Your task to perform on an android device: Search for bose soundlink on ebay, select the first entry, and add it to the cart. Image 0: 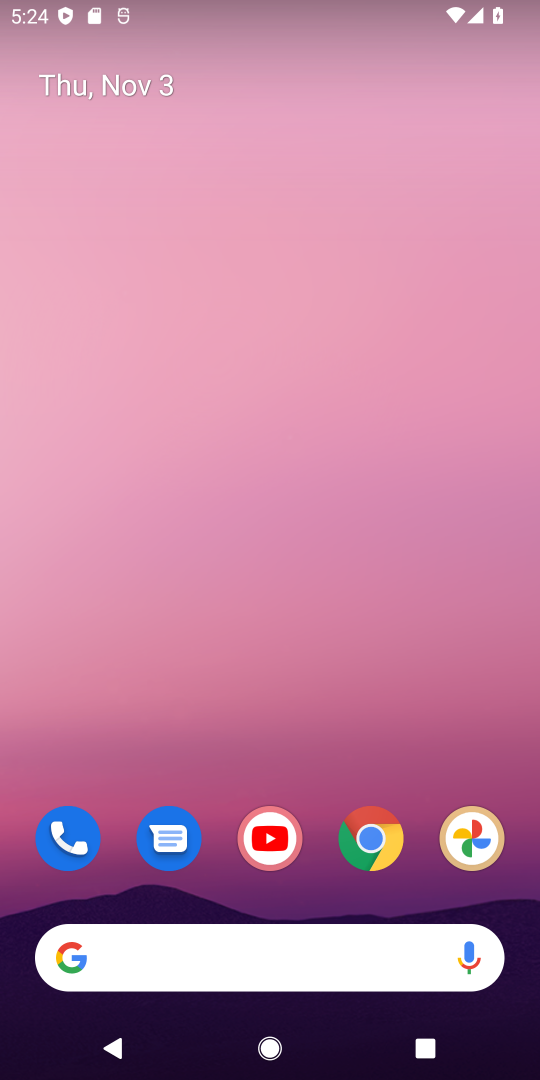
Step 0: click (373, 829)
Your task to perform on an android device: Search for bose soundlink on ebay, select the first entry, and add it to the cart. Image 1: 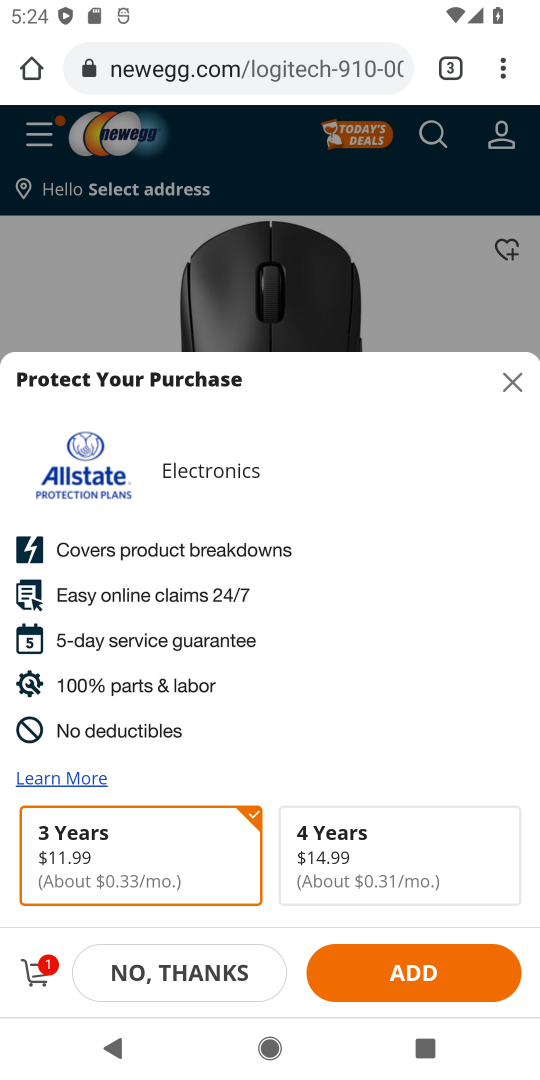
Step 1: click (453, 67)
Your task to perform on an android device: Search for bose soundlink on ebay, select the first entry, and add it to the cart. Image 2: 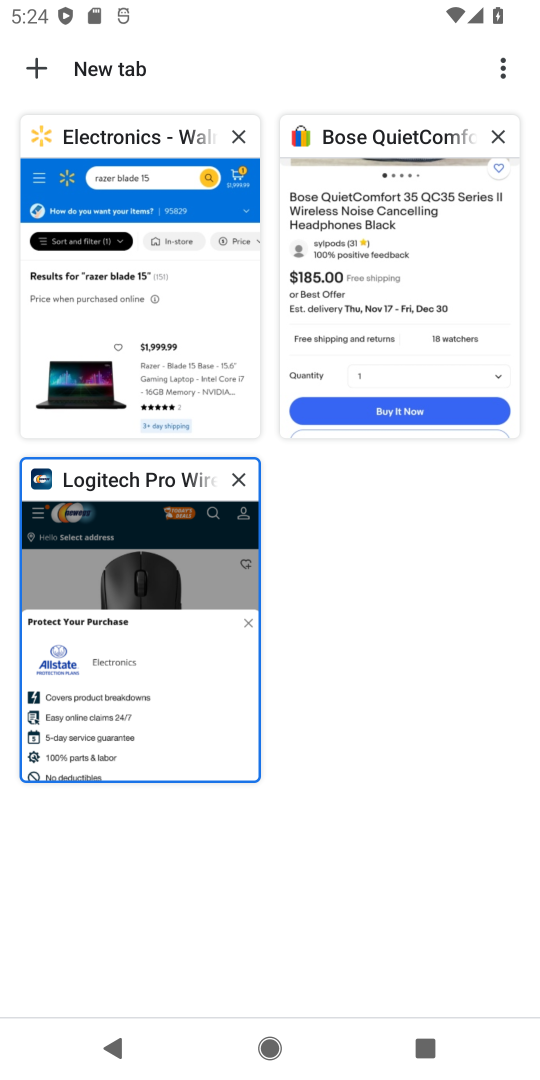
Step 2: click (359, 205)
Your task to perform on an android device: Search for bose soundlink on ebay, select the first entry, and add it to the cart. Image 3: 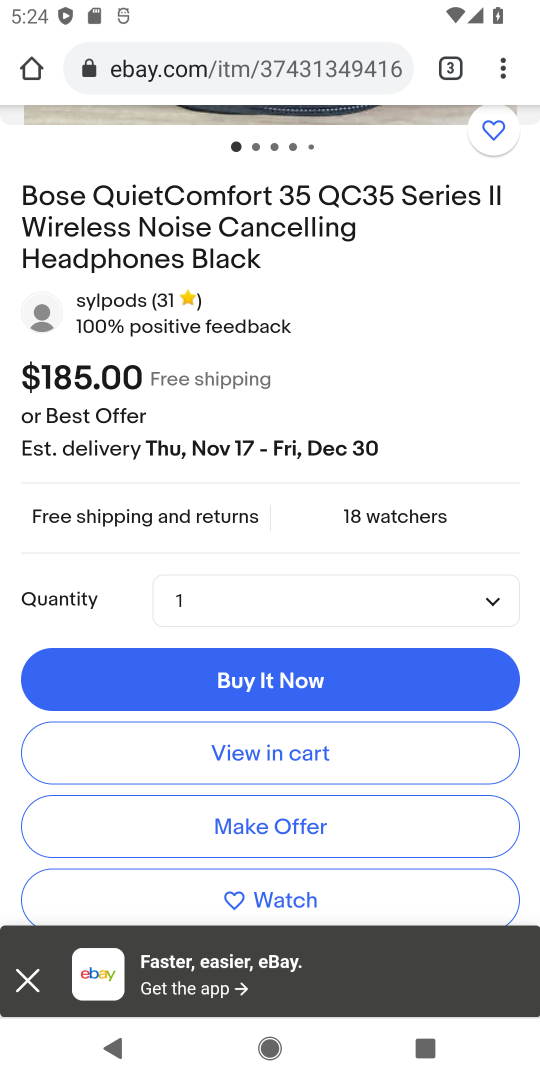
Step 3: drag from (409, 227) to (513, 1017)
Your task to perform on an android device: Search for bose soundlink on ebay, select the first entry, and add it to the cart. Image 4: 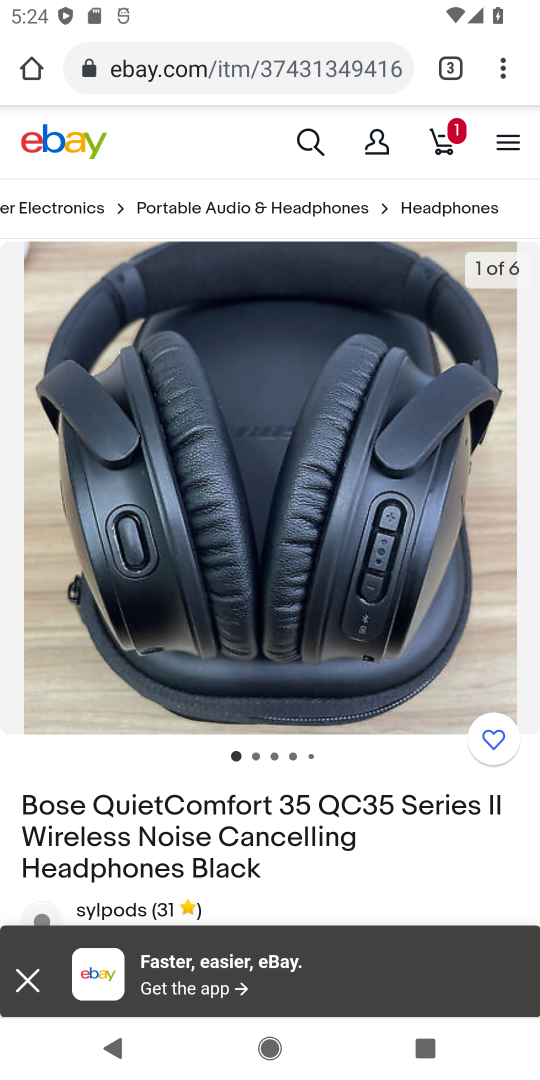
Step 4: click (311, 144)
Your task to perform on an android device: Search for bose soundlink on ebay, select the first entry, and add it to the cart. Image 5: 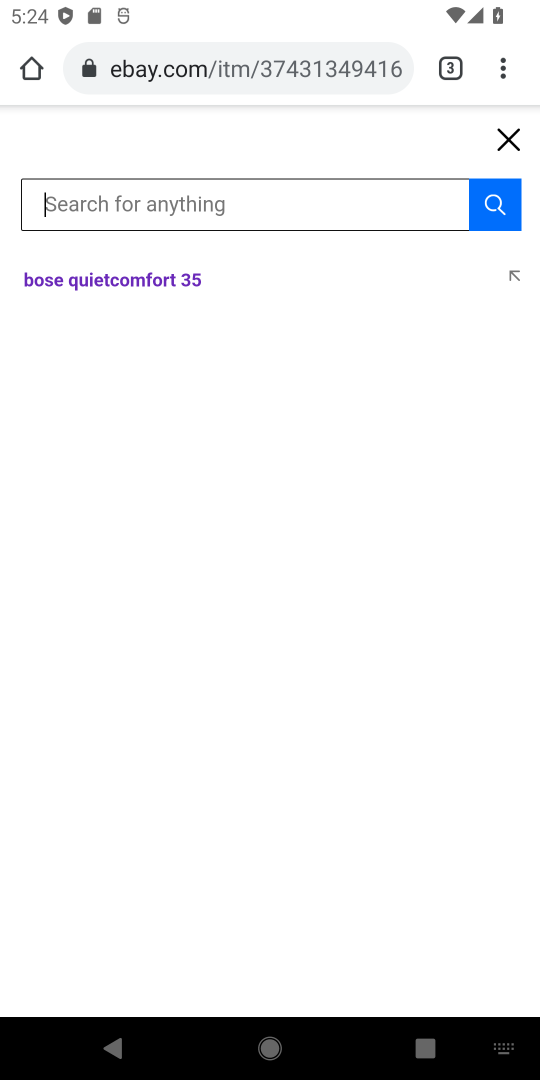
Step 5: type "bose soundlink"
Your task to perform on an android device: Search for bose soundlink on ebay, select the first entry, and add it to the cart. Image 6: 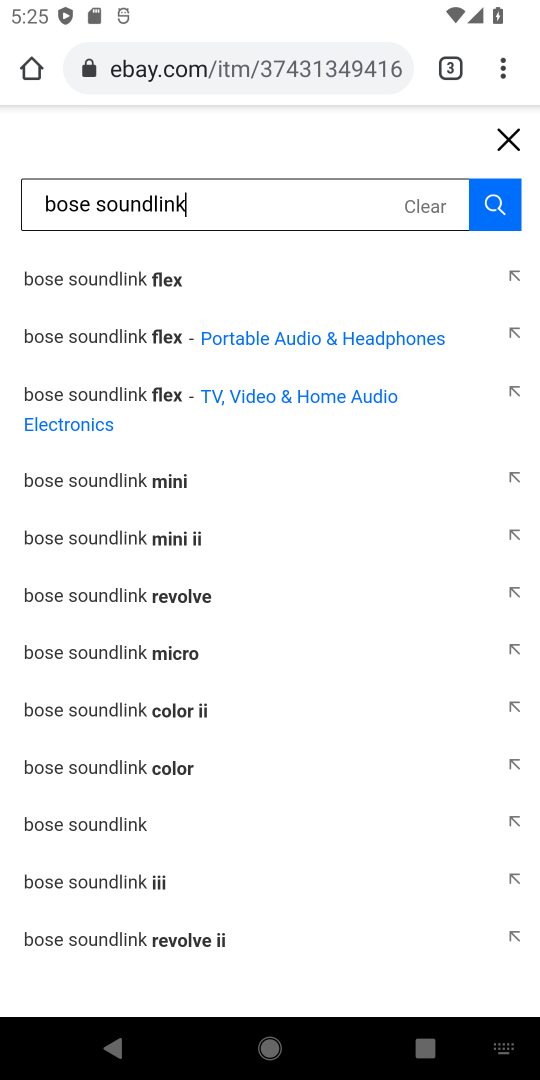
Step 6: click (118, 337)
Your task to perform on an android device: Search for bose soundlink on ebay, select the first entry, and add it to the cart. Image 7: 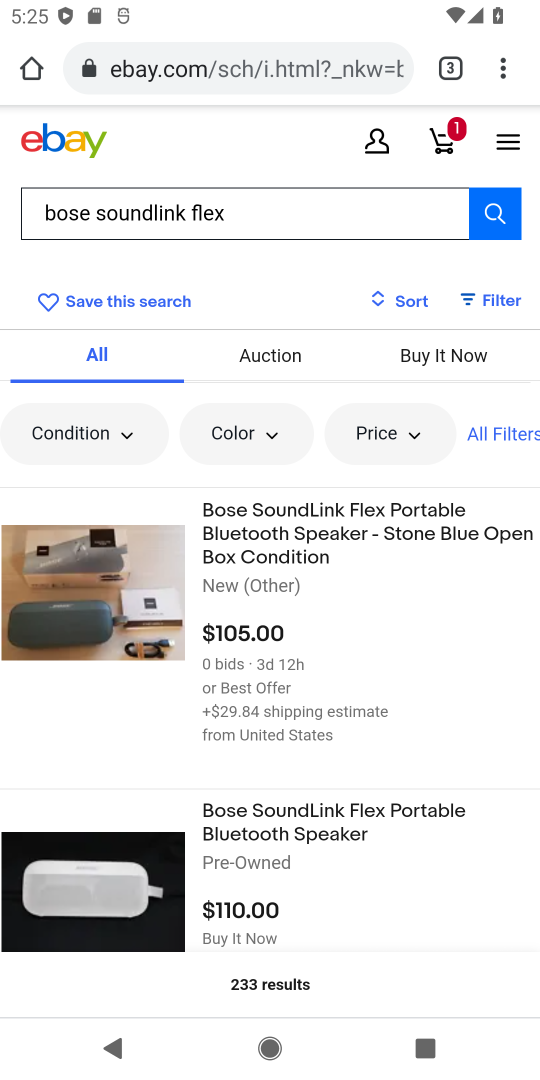
Step 7: click (354, 548)
Your task to perform on an android device: Search for bose soundlink on ebay, select the first entry, and add it to the cart. Image 8: 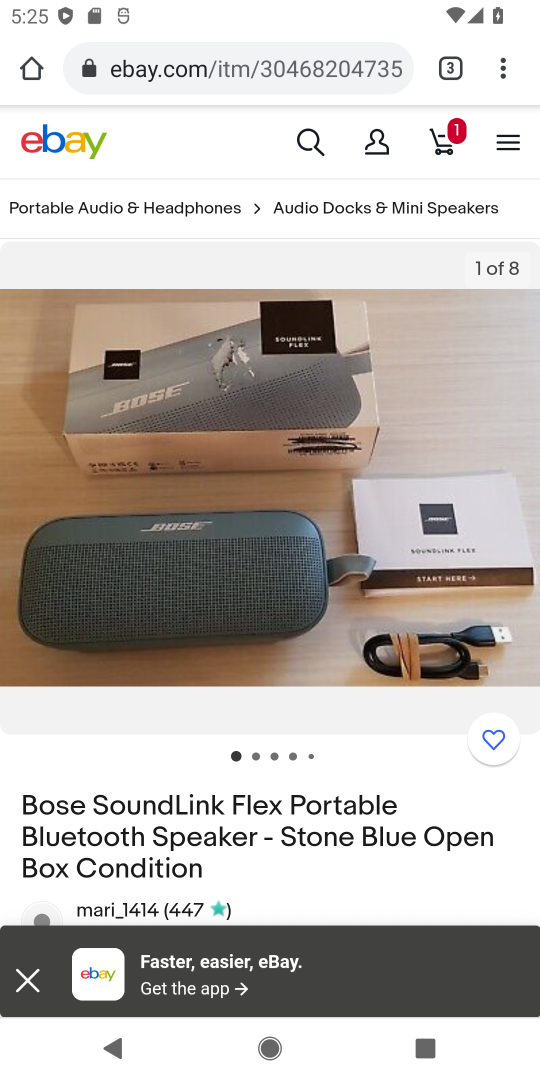
Step 8: drag from (288, 877) to (457, 26)
Your task to perform on an android device: Search for bose soundlink on ebay, select the first entry, and add it to the cart. Image 9: 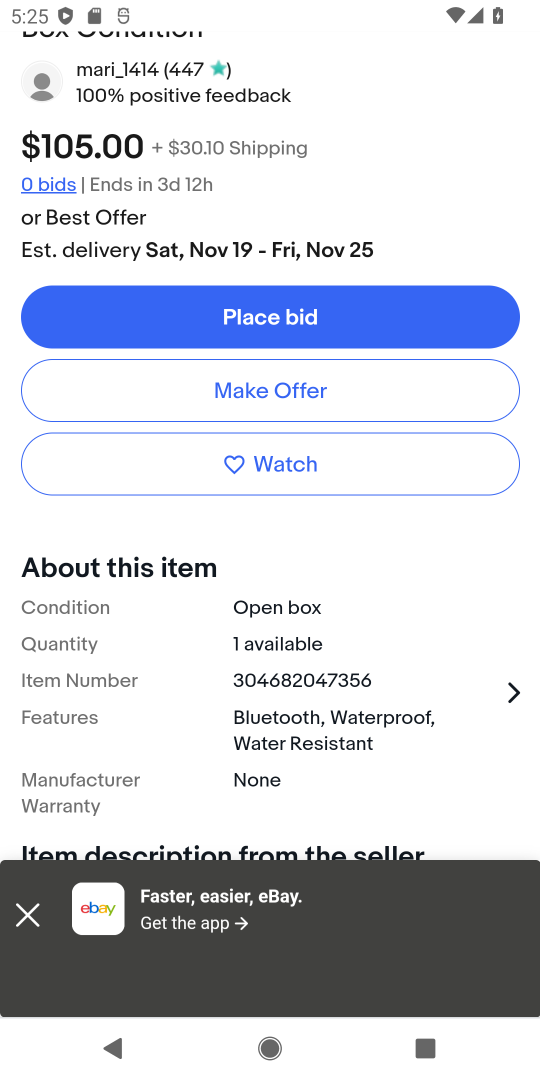
Step 9: press back button
Your task to perform on an android device: Search for bose soundlink on ebay, select the first entry, and add it to the cart. Image 10: 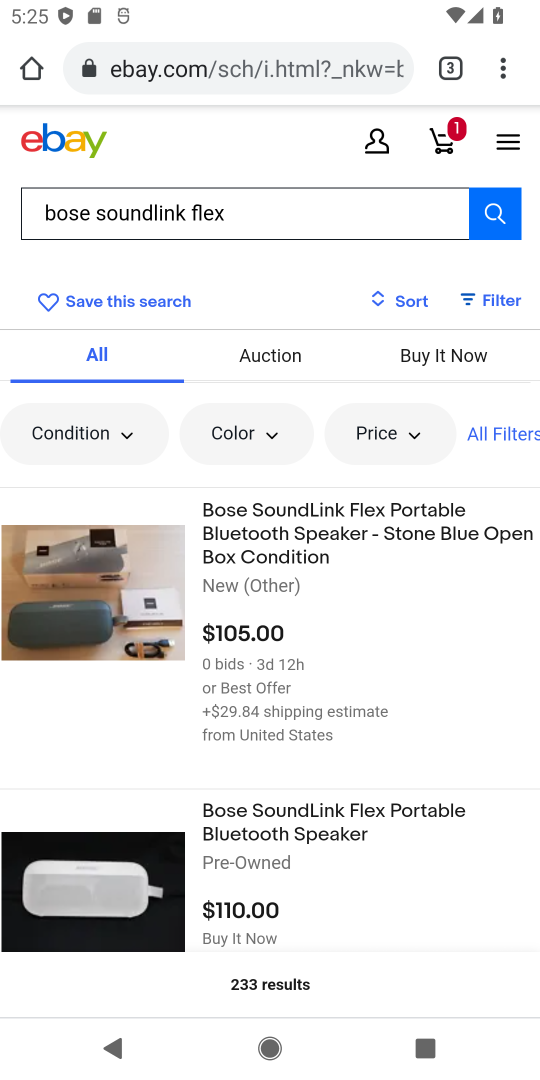
Step 10: drag from (379, 891) to (405, 405)
Your task to perform on an android device: Search for bose soundlink on ebay, select the first entry, and add it to the cart. Image 11: 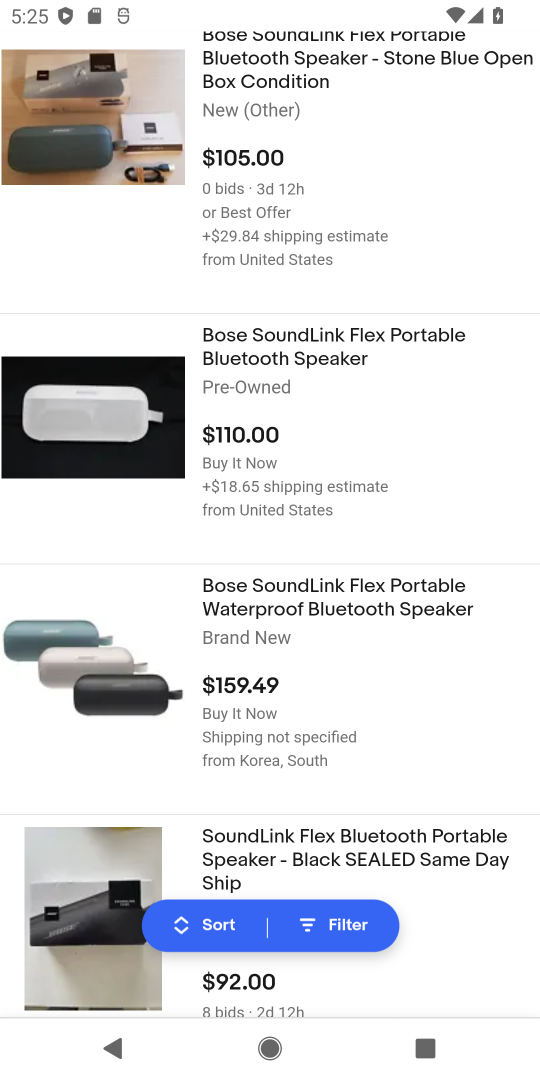
Step 11: click (364, 836)
Your task to perform on an android device: Search for bose soundlink on ebay, select the first entry, and add it to the cart. Image 12: 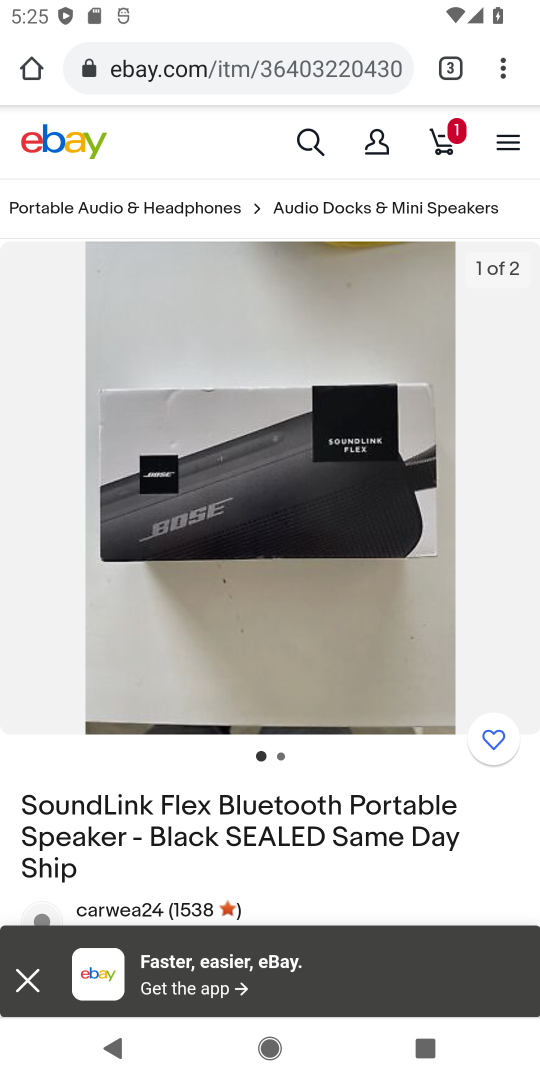
Step 12: drag from (375, 935) to (399, 130)
Your task to perform on an android device: Search for bose soundlink on ebay, select the first entry, and add it to the cart. Image 13: 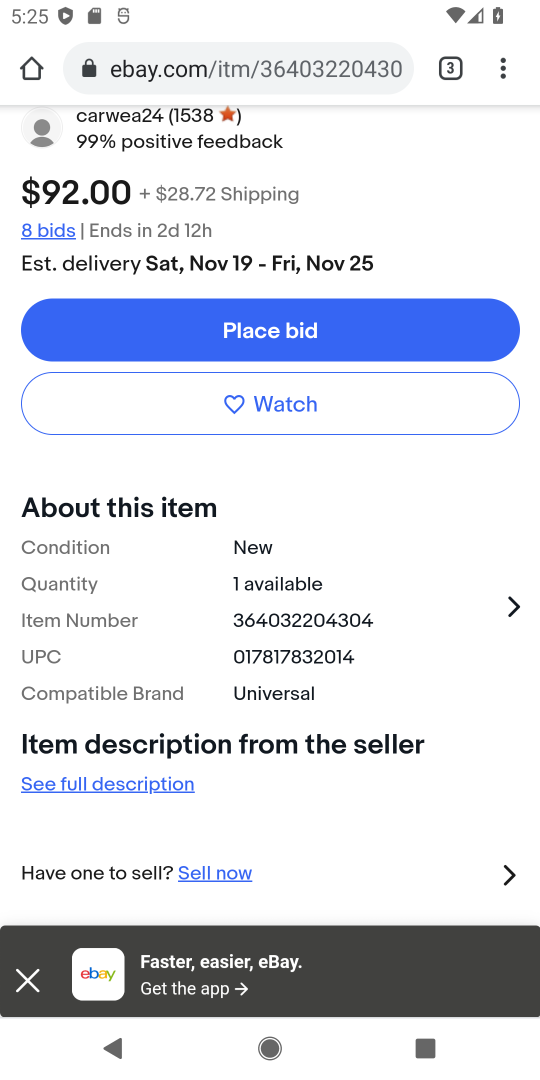
Step 13: press back button
Your task to perform on an android device: Search for bose soundlink on ebay, select the first entry, and add it to the cart. Image 14: 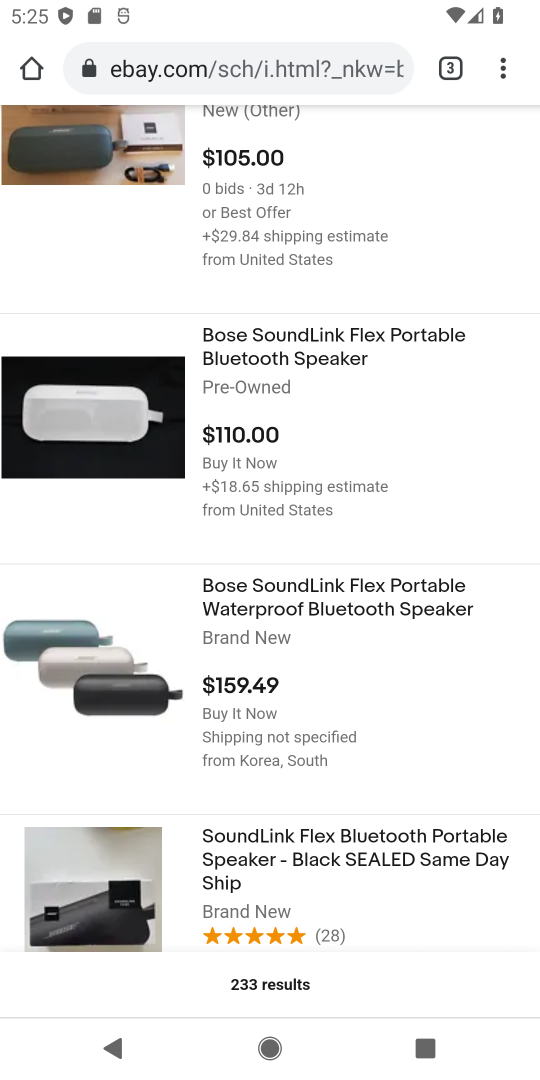
Step 14: drag from (396, 746) to (480, 162)
Your task to perform on an android device: Search for bose soundlink on ebay, select the first entry, and add it to the cart. Image 15: 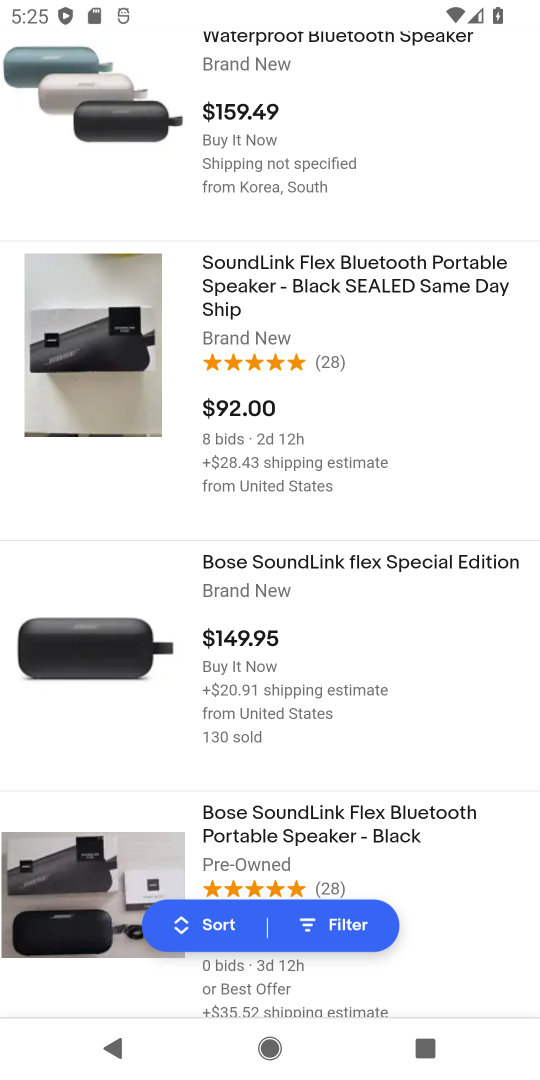
Step 15: click (342, 296)
Your task to perform on an android device: Search for bose soundlink on ebay, select the first entry, and add it to the cart. Image 16: 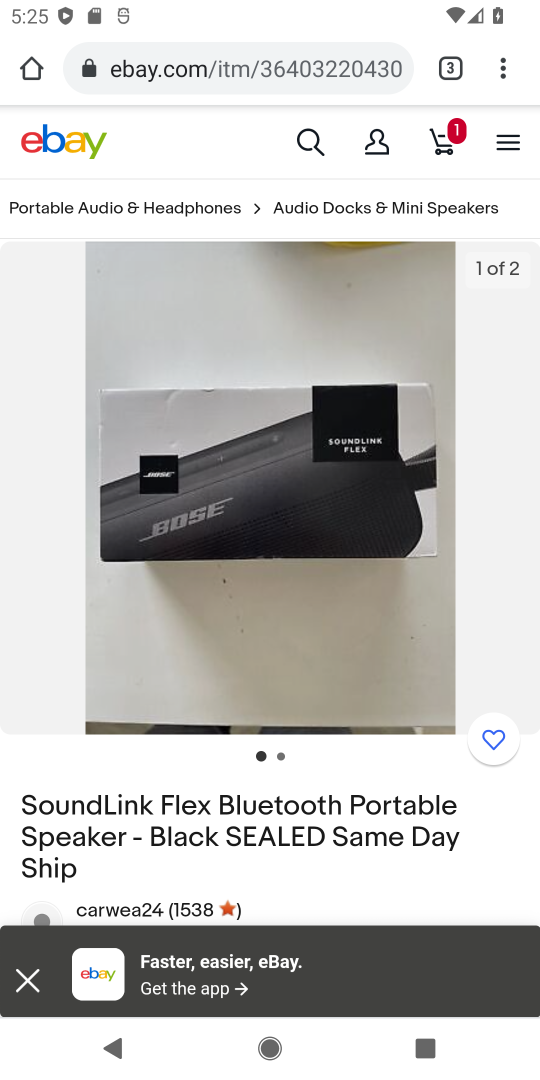
Step 16: task complete